Your task to perform on an android device: check storage Image 0: 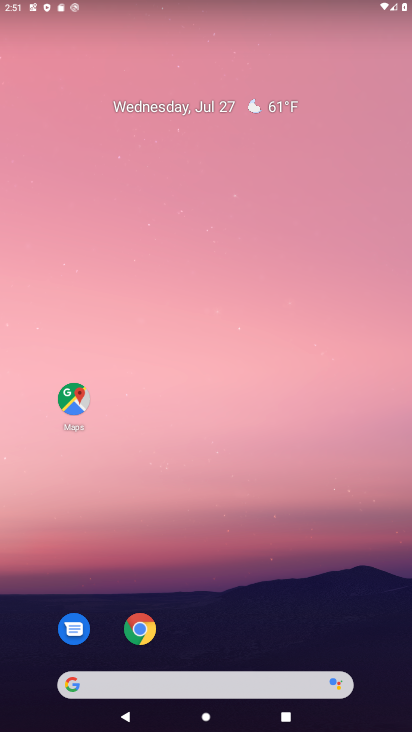
Step 0: press home button
Your task to perform on an android device: check storage Image 1: 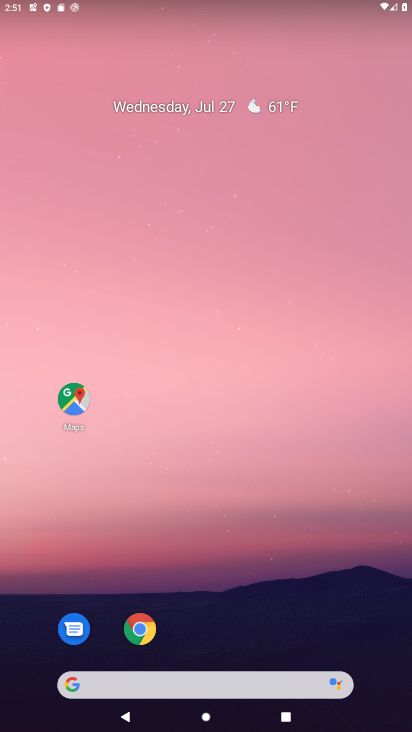
Step 1: drag from (174, 682) to (160, 164)
Your task to perform on an android device: check storage Image 2: 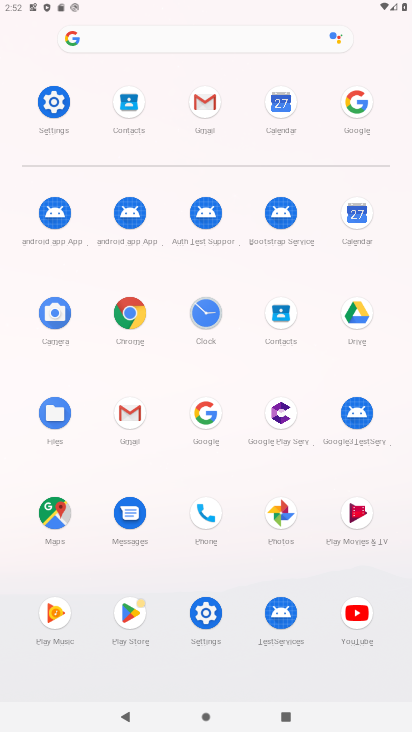
Step 2: click (54, 101)
Your task to perform on an android device: check storage Image 3: 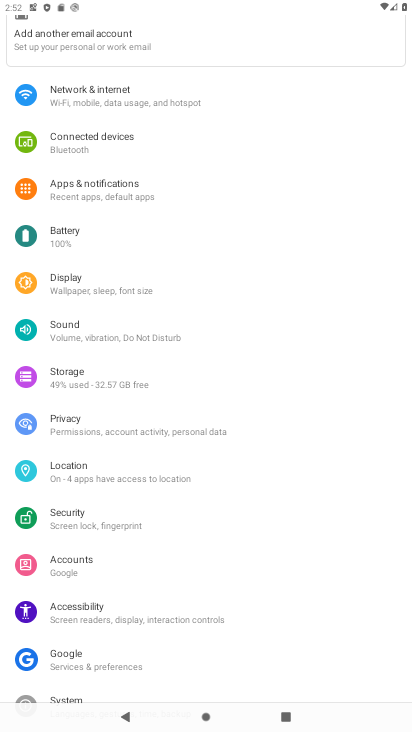
Step 3: click (72, 378)
Your task to perform on an android device: check storage Image 4: 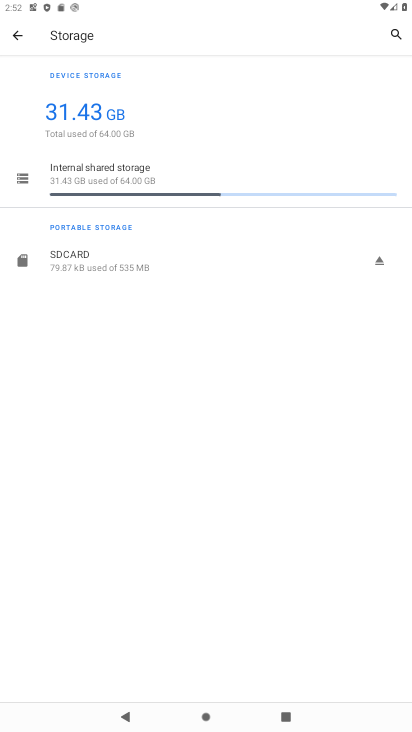
Step 4: task complete